Your task to perform on an android device: Open the stopwatch Image 0: 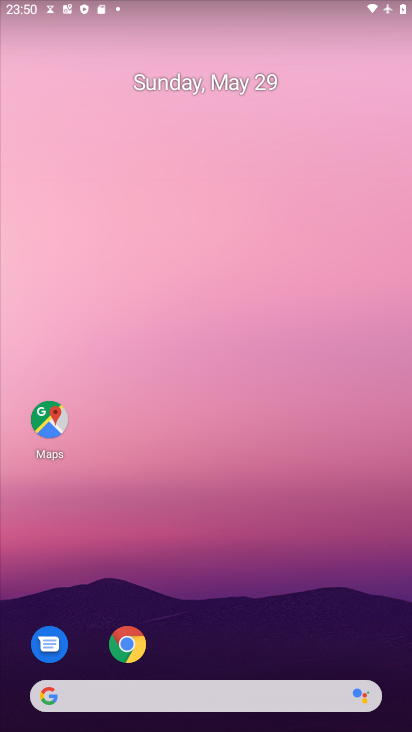
Step 0: drag from (222, 623) to (248, 204)
Your task to perform on an android device: Open the stopwatch Image 1: 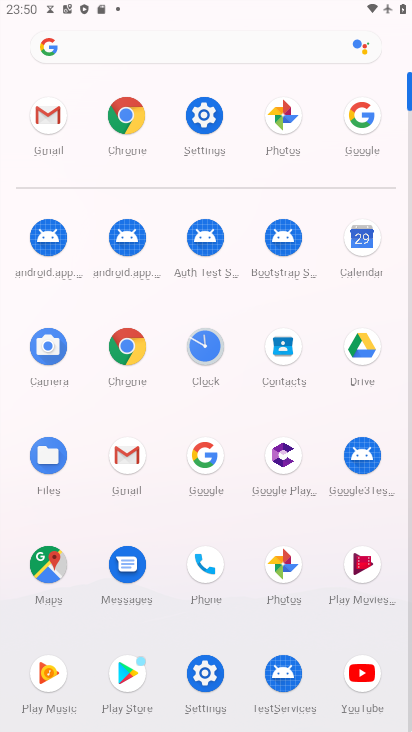
Step 1: click (204, 339)
Your task to perform on an android device: Open the stopwatch Image 2: 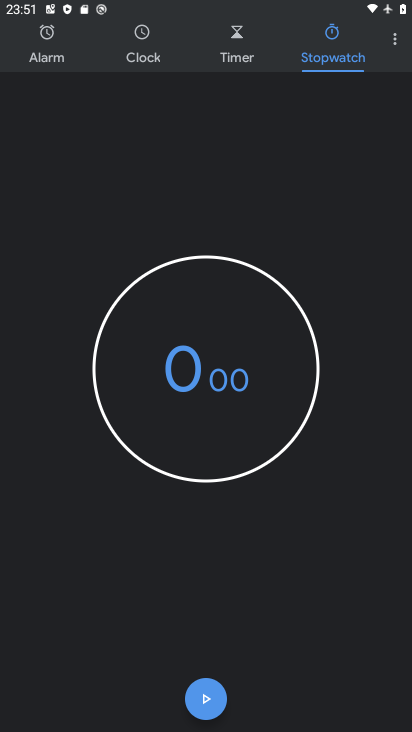
Step 2: task complete